Your task to perform on an android device: turn off priority inbox in the gmail app Image 0: 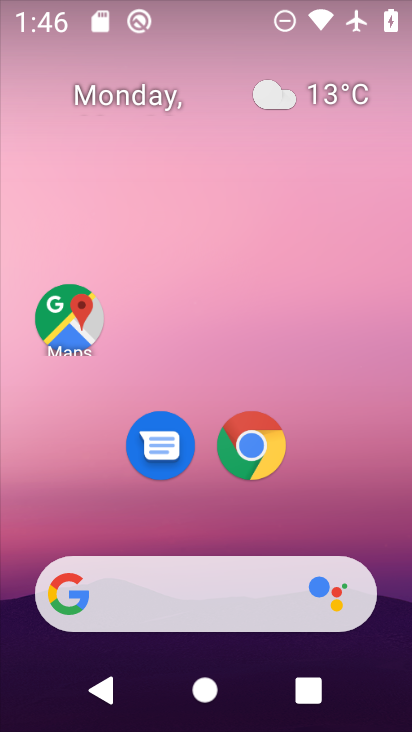
Step 0: drag from (389, 616) to (266, 53)
Your task to perform on an android device: turn off priority inbox in the gmail app Image 1: 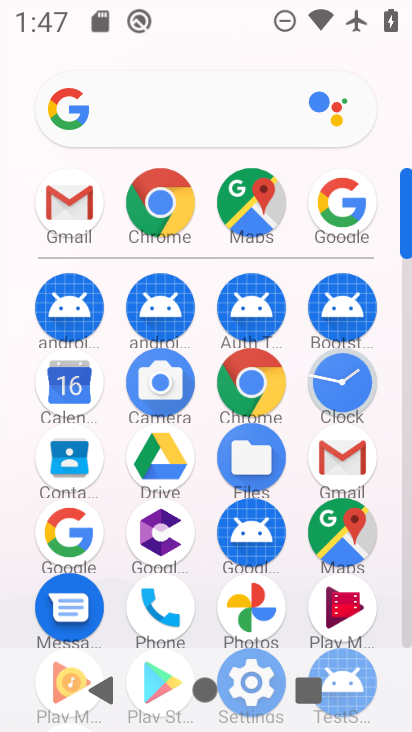
Step 1: click (351, 467)
Your task to perform on an android device: turn off priority inbox in the gmail app Image 2: 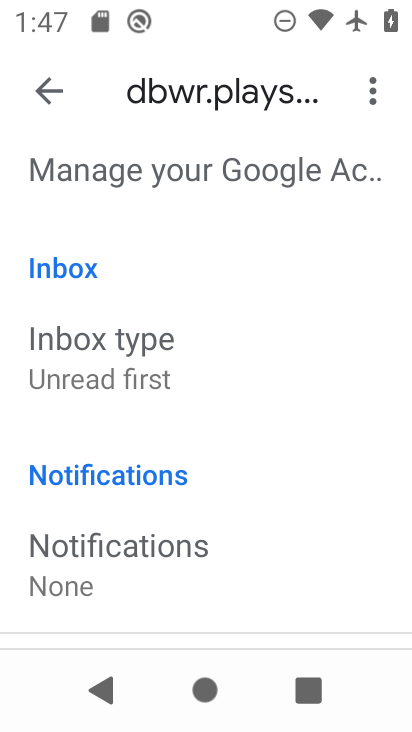
Step 2: click (206, 367)
Your task to perform on an android device: turn off priority inbox in the gmail app Image 3: 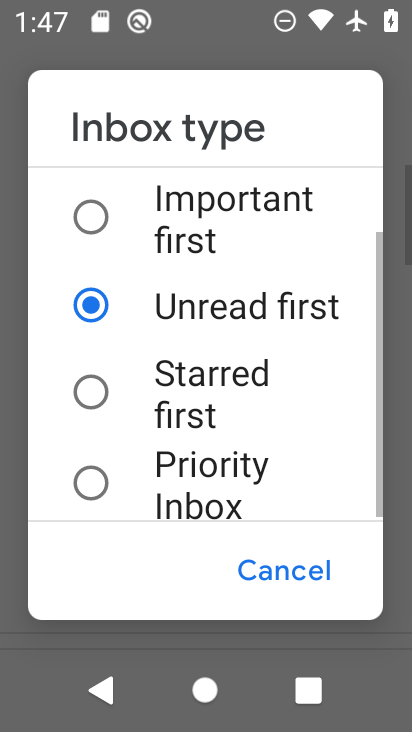
Step 3: click (169, 374)
Your task to perform on an android device: turn off priority inbox in the gmail app Image 4: 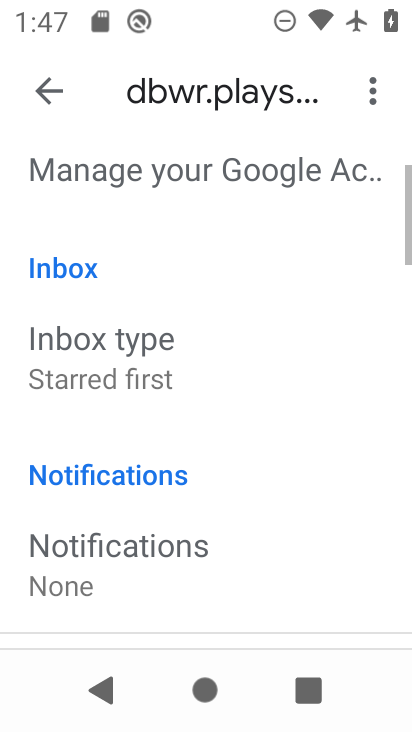
Step 4: task complete